Your task to perform on an android device: toggle javascript in the chrome app Image 0: 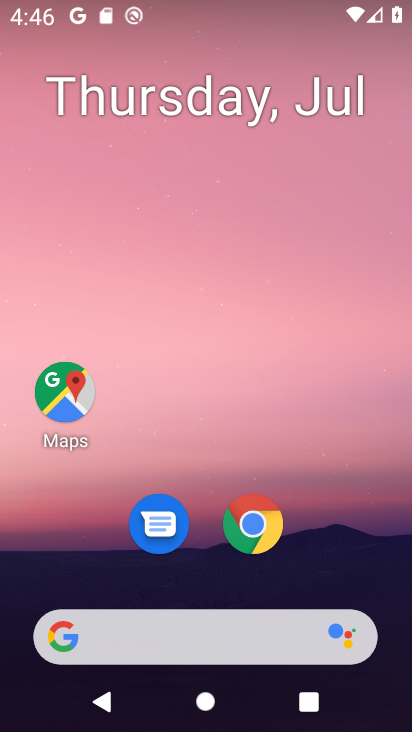
Step 0: click (262, 528)
Your task to perform on an android device: toggle javascript in the chrome app Image 1: 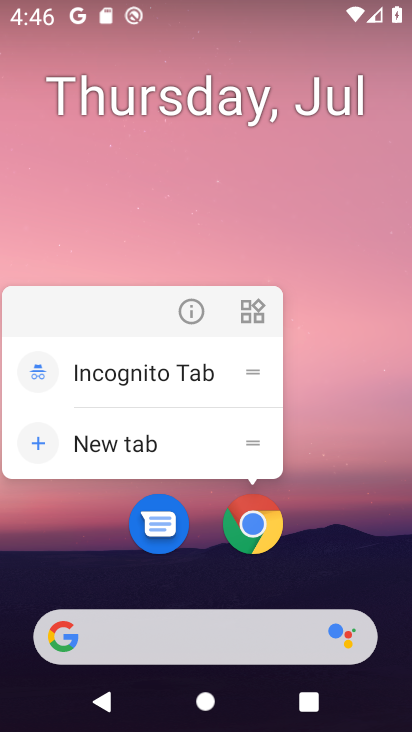
Step 1: click (248, 516)
Your task to perform on an android device: toggle javascript in the chrome app Image 2: 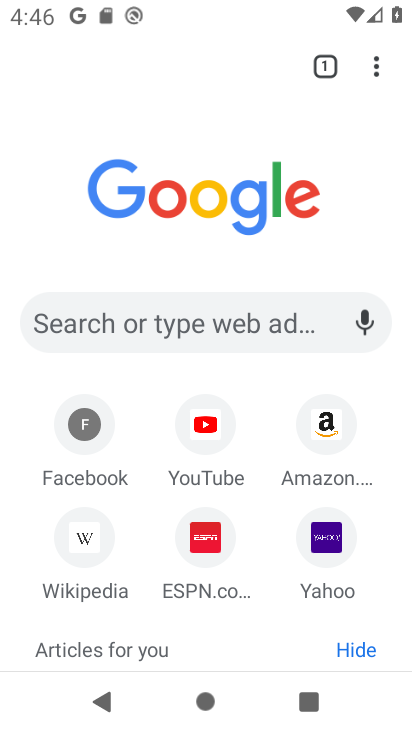
Step 2: drag from (380, 75) to (161, 554)
Your task to perform on an android device: toggle javascript in the chrome app Image 3: 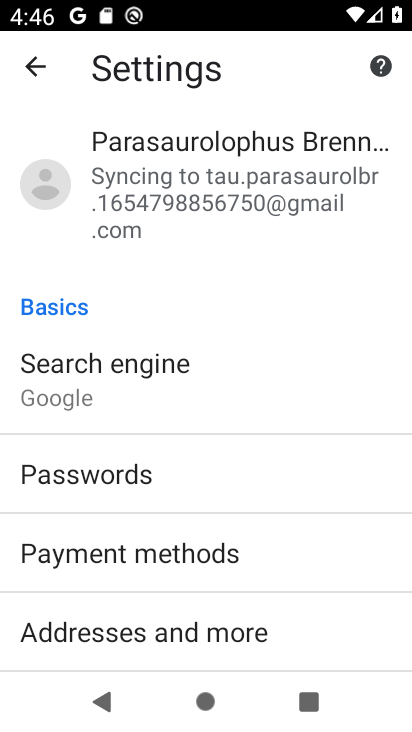
Step 3: drag from (148, 604) to (90, 228)
Your task to perform on an android device: toggle javascript in the chrome app Image 4: 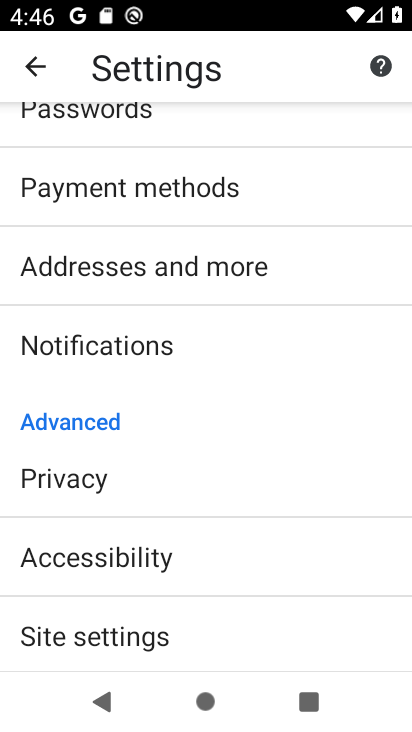
Step 4: click (69, 625)
Your task to perform on an android device: toggle javascript in the chrome app Image 5: 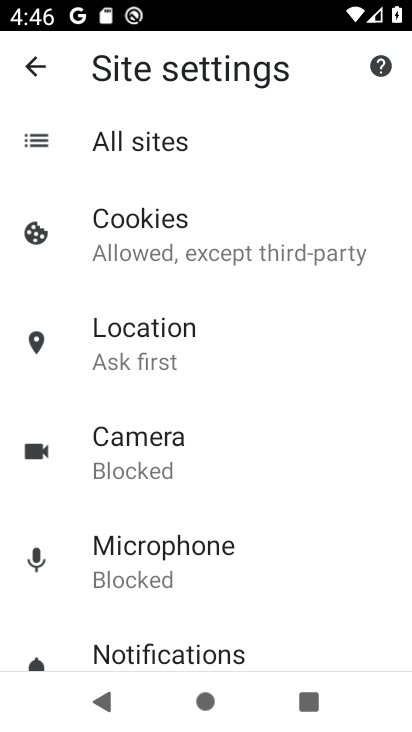
Step 5: drag from (162, 575) to (133, 334)
Your task to perform on an android device: toggle javascript in the chrome app Image 6: 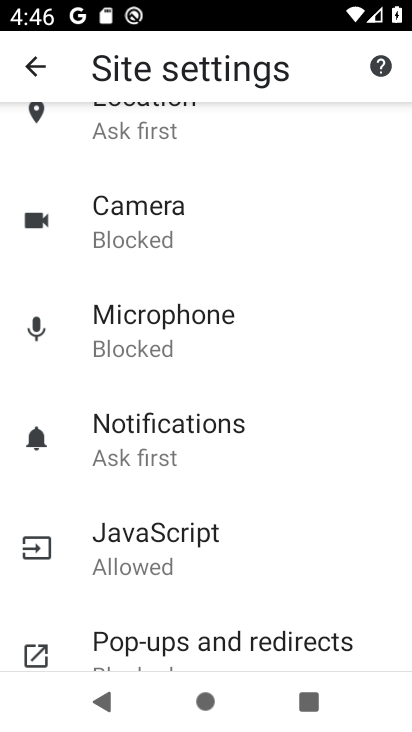
Step 6: click (141, 527)
Your task to perform on an android device: toggle javascript in the chrome app Image 7: 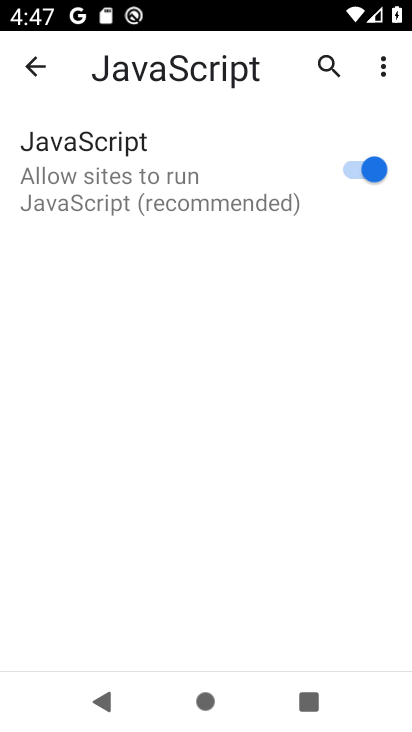
Step 7: click (369, 156)
Your task to perform on an android device: toggle javascript in the chrome app Image 8: 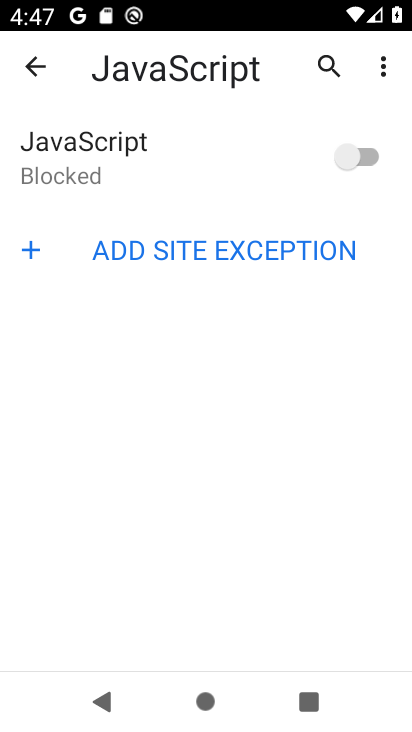
Step 8: task complete